Your task to perform on an android device: add a contact in the contacts app Image 0: 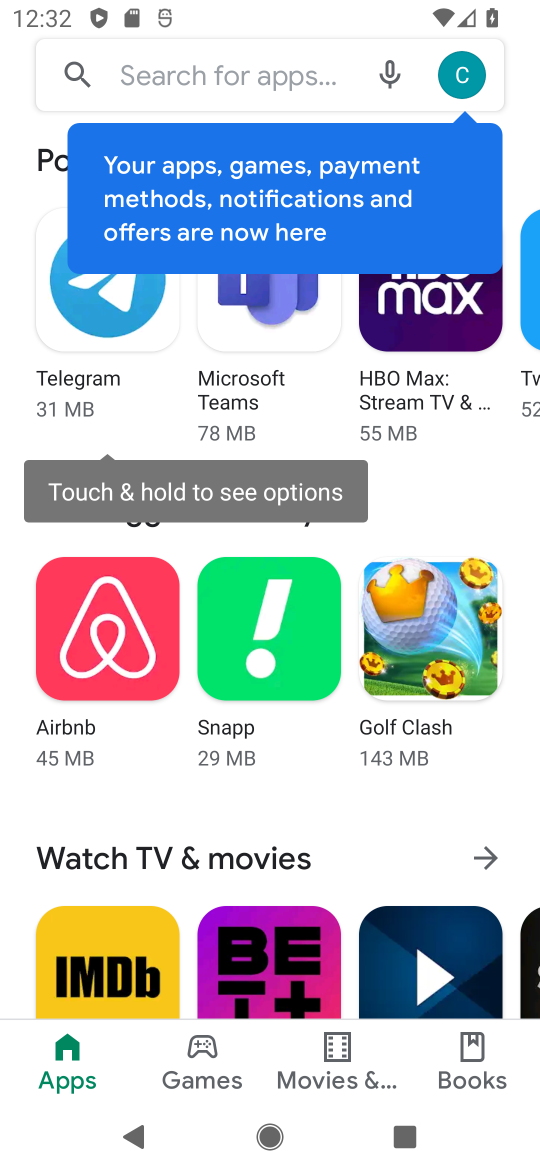
Step 0: press back button
Your task to perform on an android device: add a contact in the contacts app Image 1: 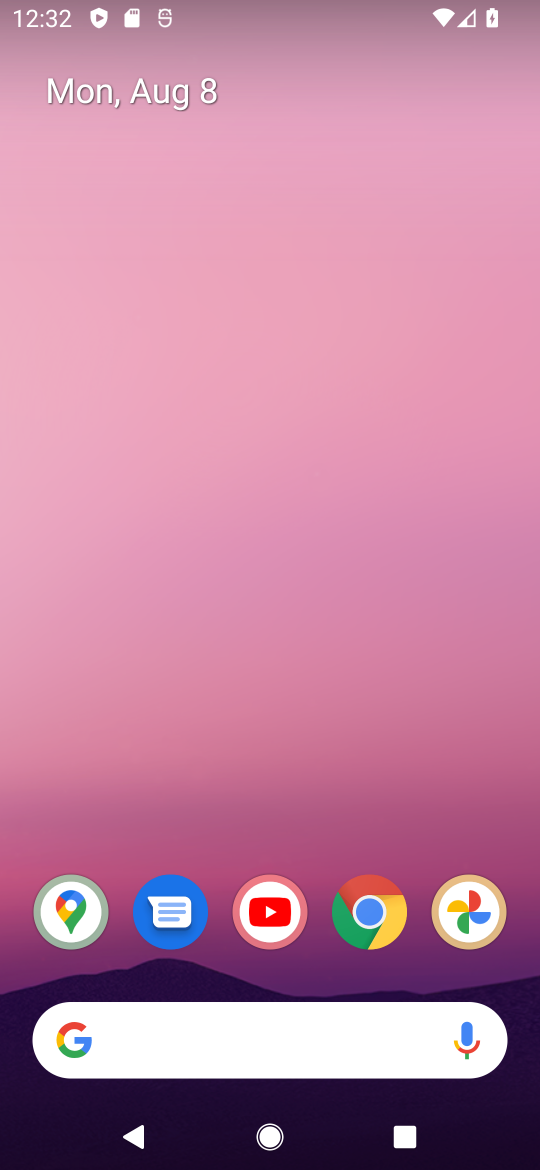
Step 1: drag from (214, 1030) to (331, 74)
Your task to perform on an android device: add a contact in the contacts app Image 2: 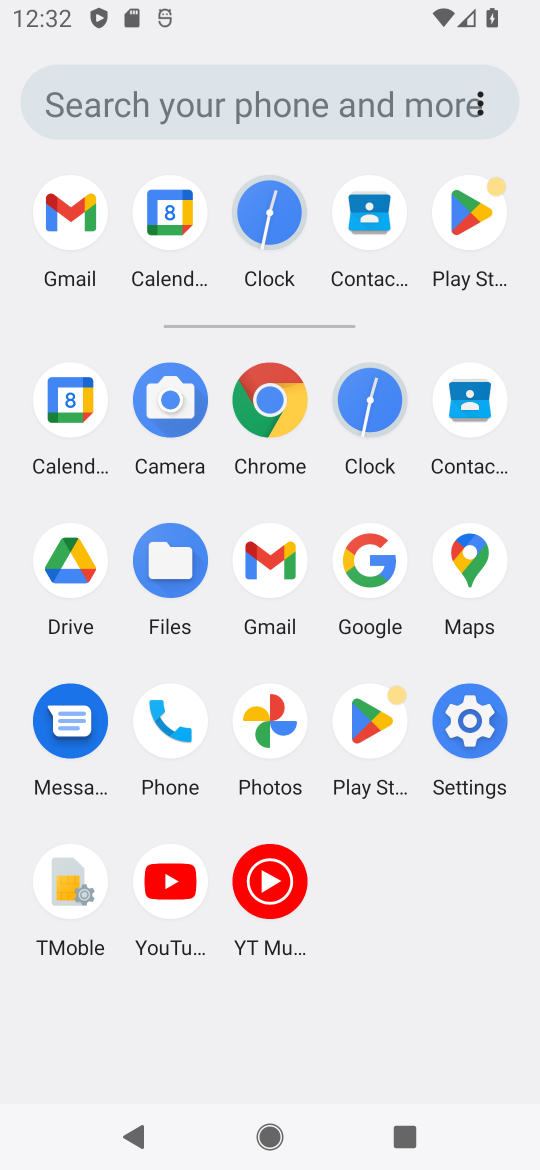
Step 2: click (462, 413)
Your task to perform on an android device: add a contact in the contacts app Image 3: 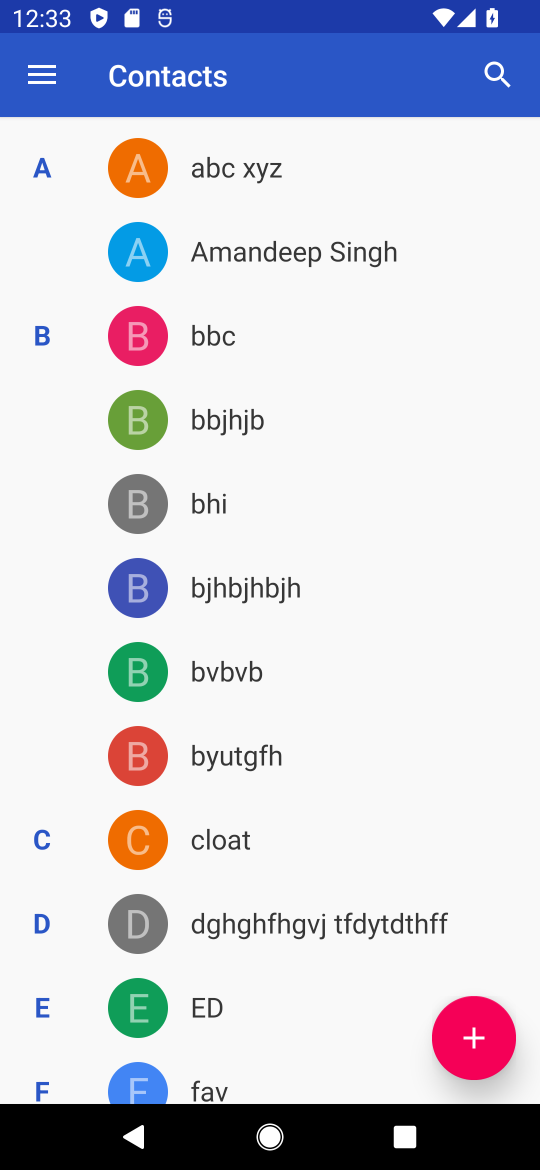
Step 3: click (481, 1030)
Your task to perform on an android device: add a contact in the contacts app Image 4: 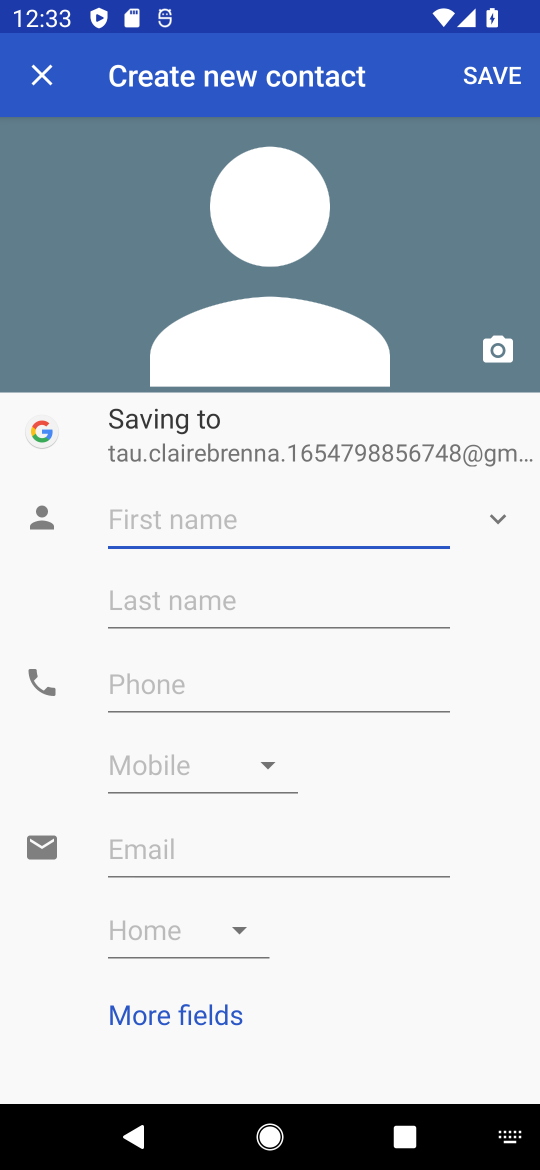
Step 4: click (166, 526)
Your task to perform on an android device: add a contact in the contacts app Image 5: 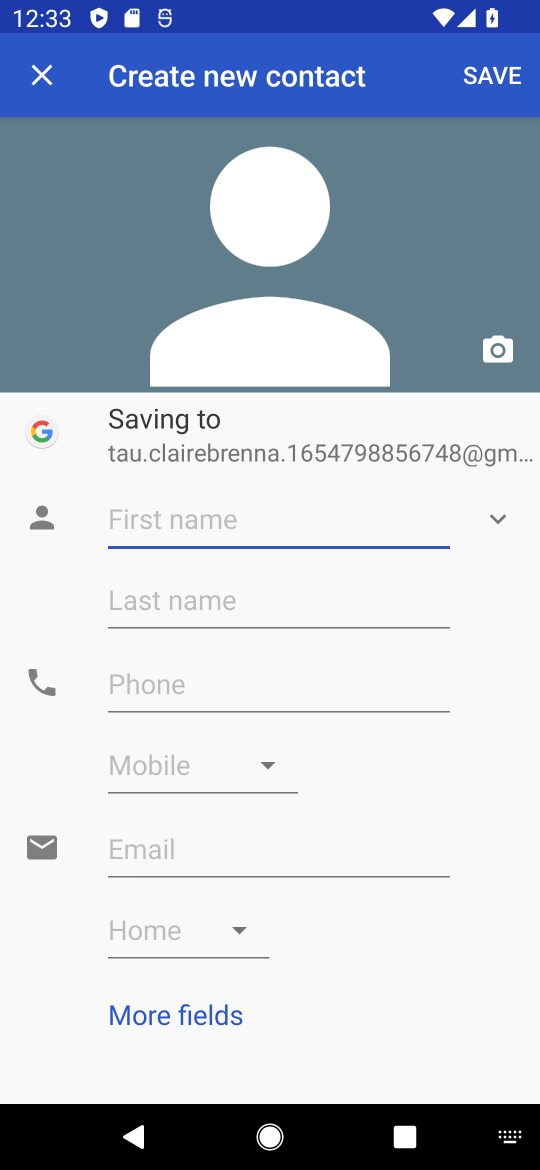
Step 5: type "ghghgh"
Your task to perform on an android device: add a contact in the contacts app Image 6: 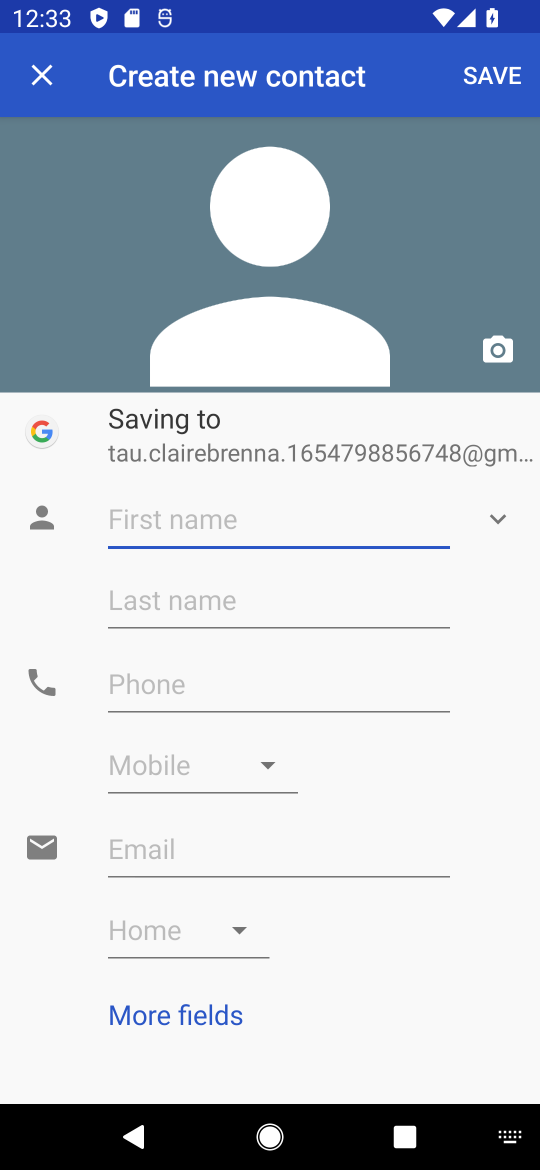
Step 6: click (215, 692)
Your task to perform on an android device: add a contact in the contacts app Image 7: 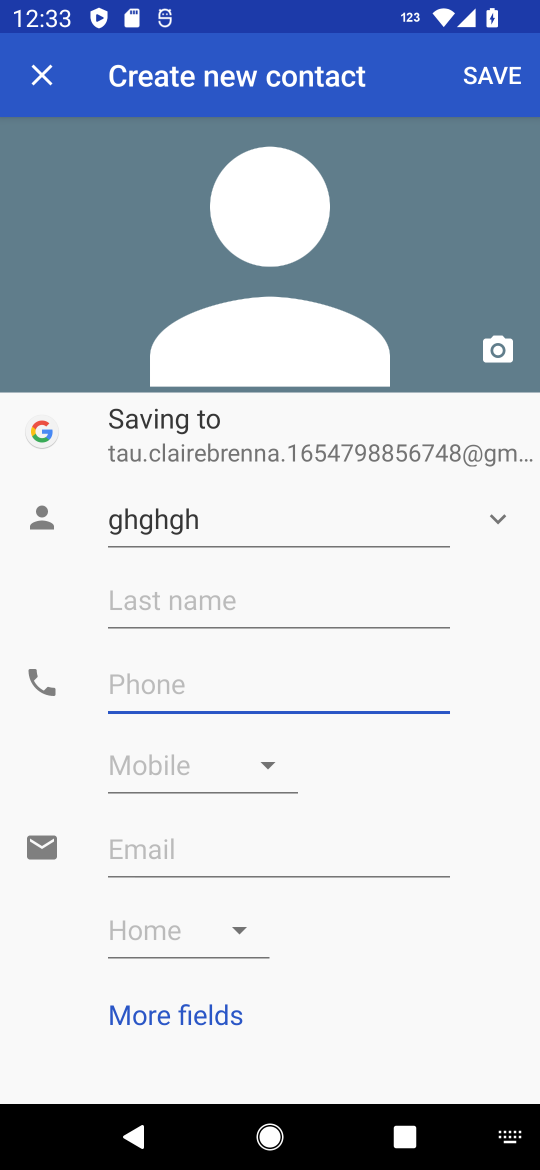
Step 7: type "877878"
Your task to perform on an android device: add a contact in the contacts app Image 8: 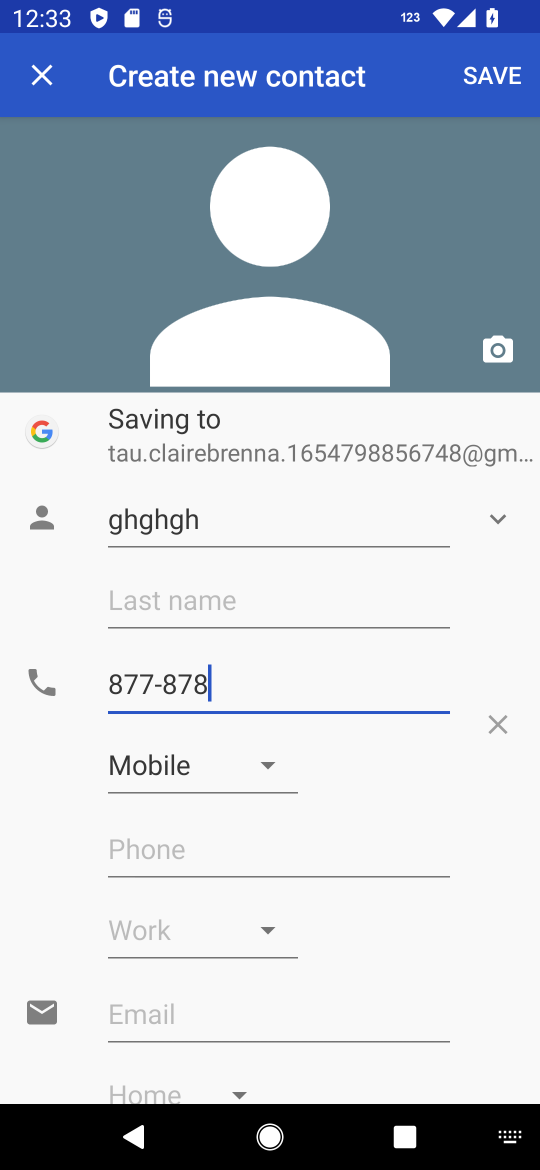
Step 8: click (492, 80)
Your task to perform on an android device: add a contact in the contacts app Image 9: 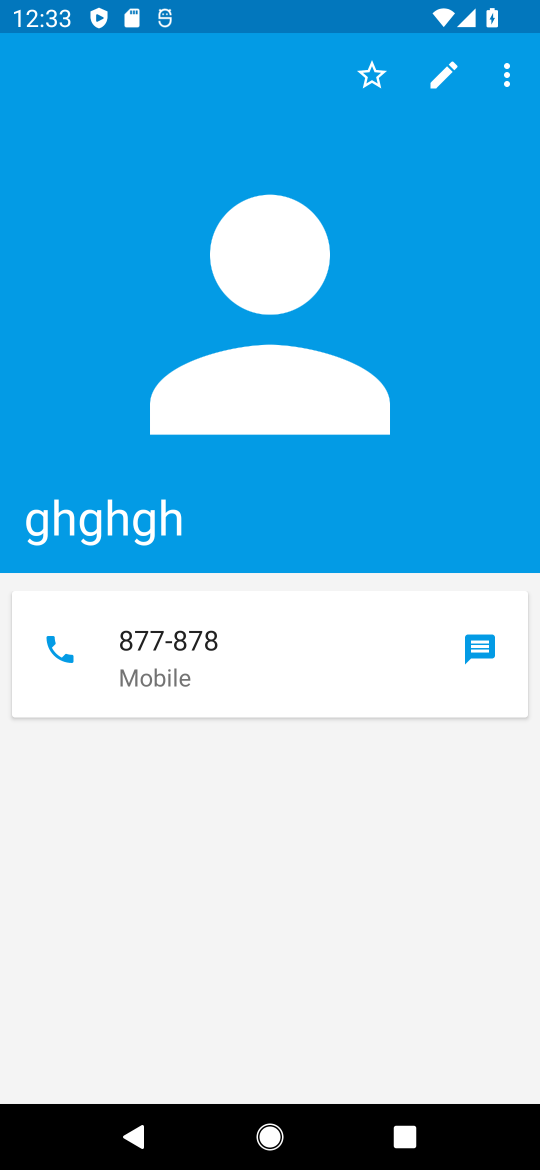
Step 9: task complete